Your task to perform on an android device: change your default location settings in chrome Image 0: 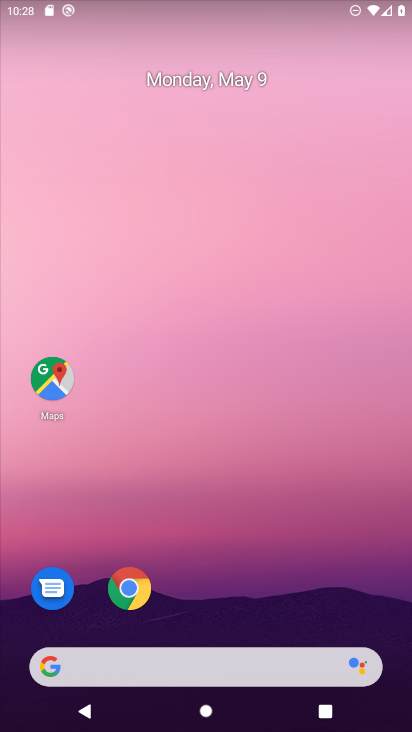
Step 0: click (155, 588)
Your task to perform on an android device: change your default location settings in chrome Image 1: 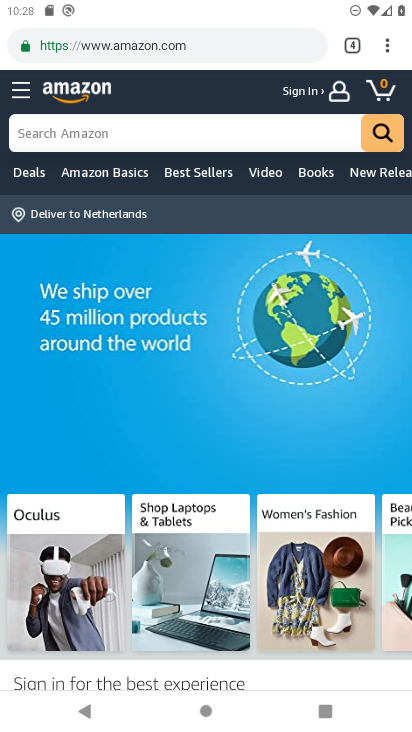
Step 1: click (382, 37)
Your task to perform on an android device: change your default location settings in chrome Image 2: 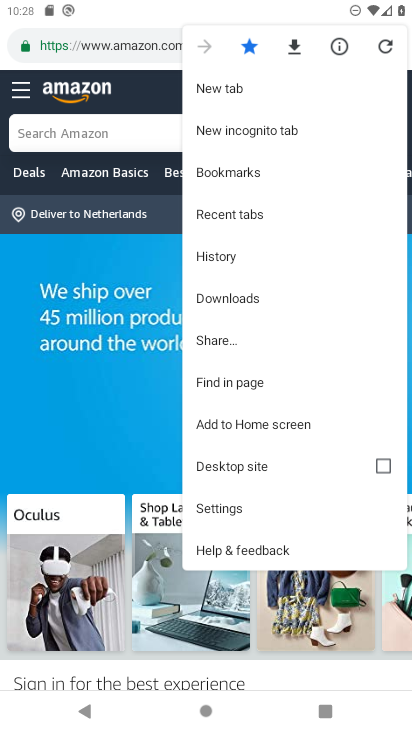
Step 2: click (240, 515)
Your task to perform on an android device: change your default location settings in chrome Image 3: 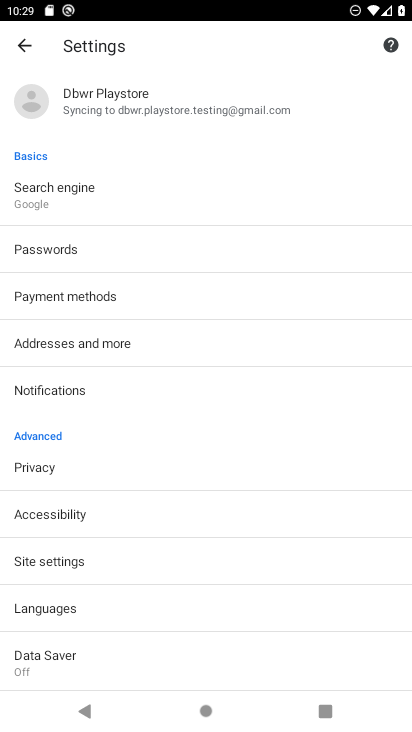
Step 3: click (145, 328)
Your task to perform on an android device: change your default location settings in chrome Image 4: 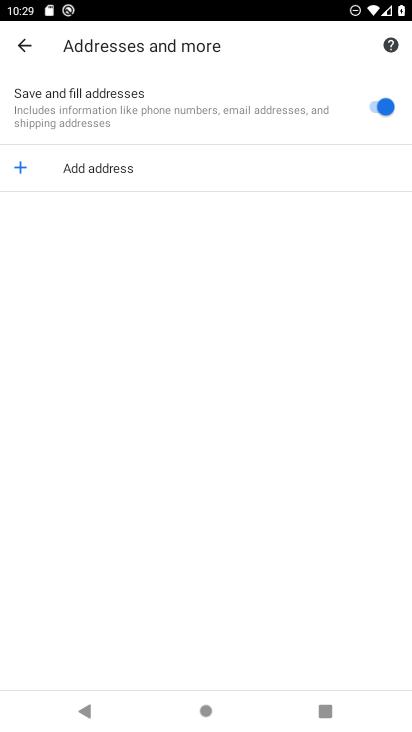
Step 4: task complete